Your task to perform on an android device: Search for "usb-b" on bestbuy, select the first entry, add it to the cart, then select checkout. Image 0: 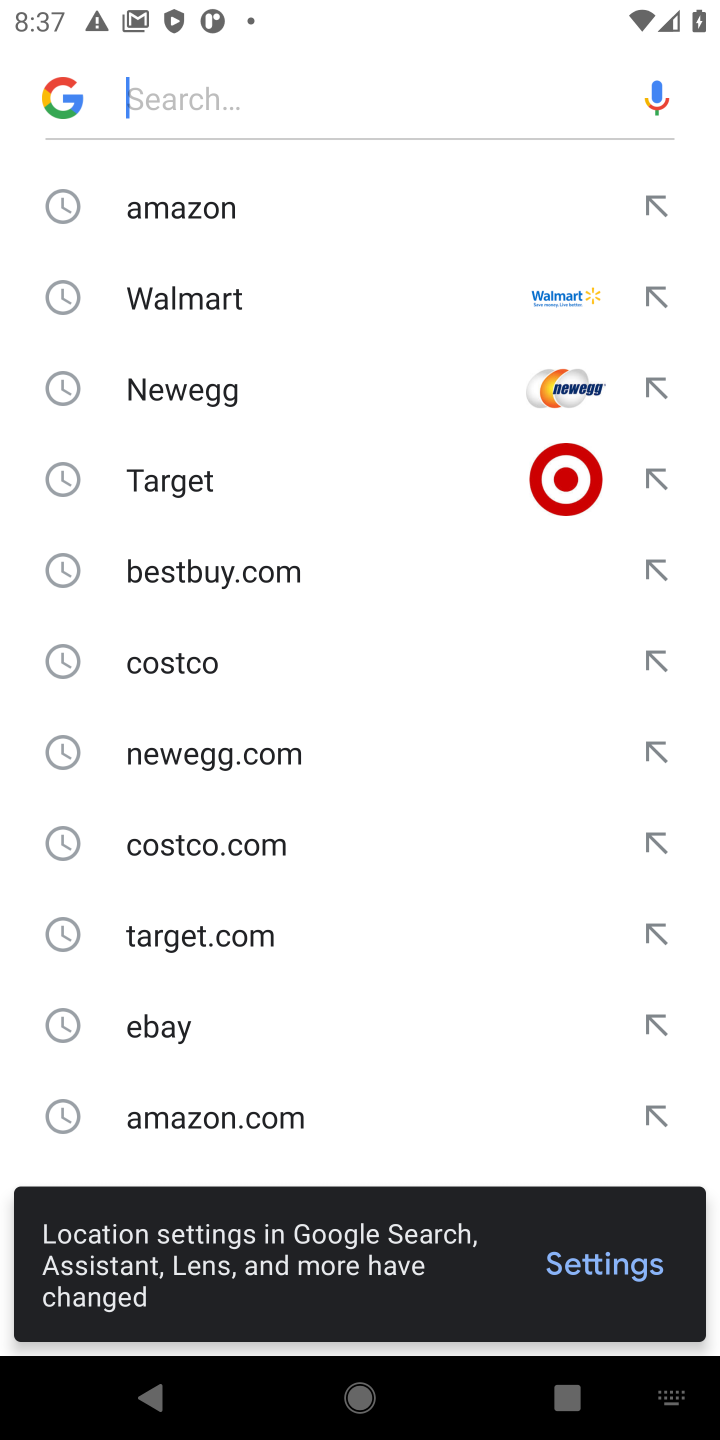
Step 0: press home button
Your task to perform on an android device: Search for "usb-b" on bestbuy, select the first entry, add it to the cart, then select checkout. Image 1: 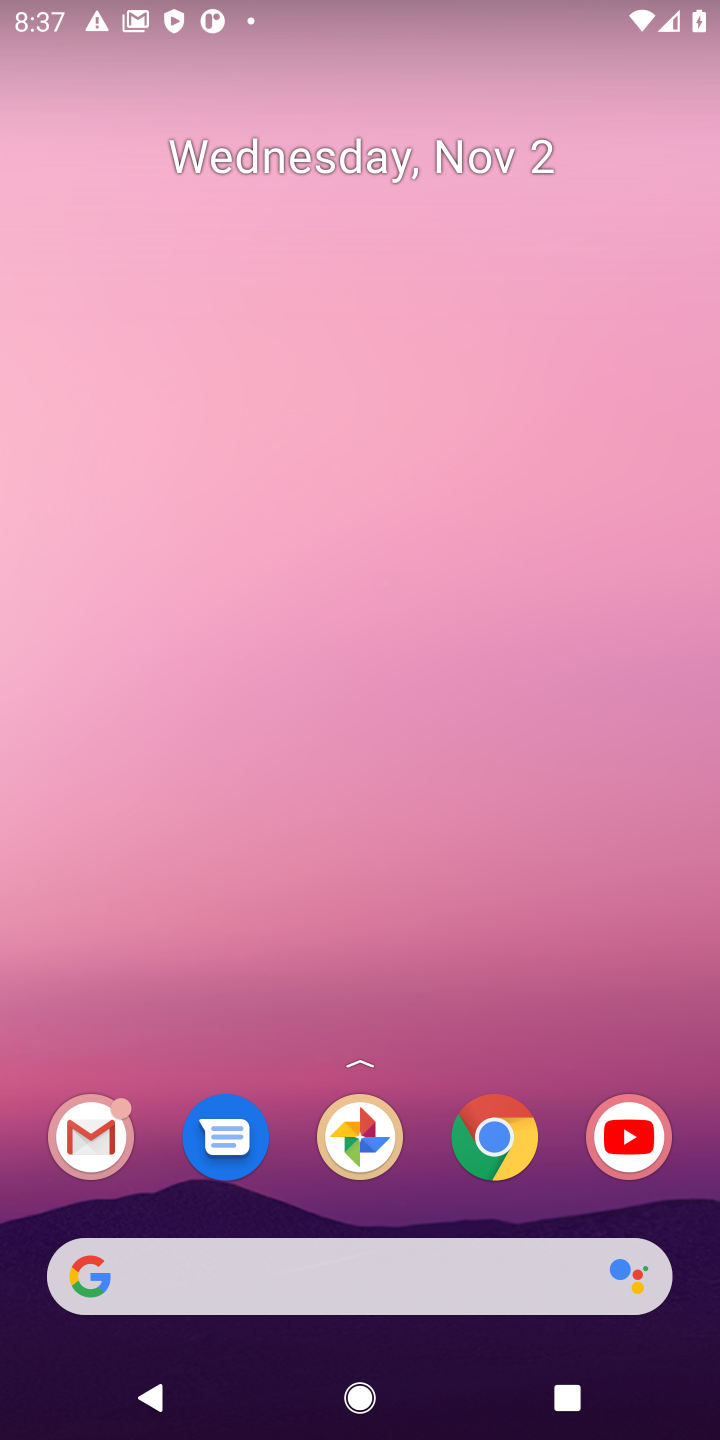
Step 1: click (488, 1137)
Your task to perform on an android device: Search for "usb-b" on bestbuy, select the first entry, add it to the cart, then select checkout. Image 2: 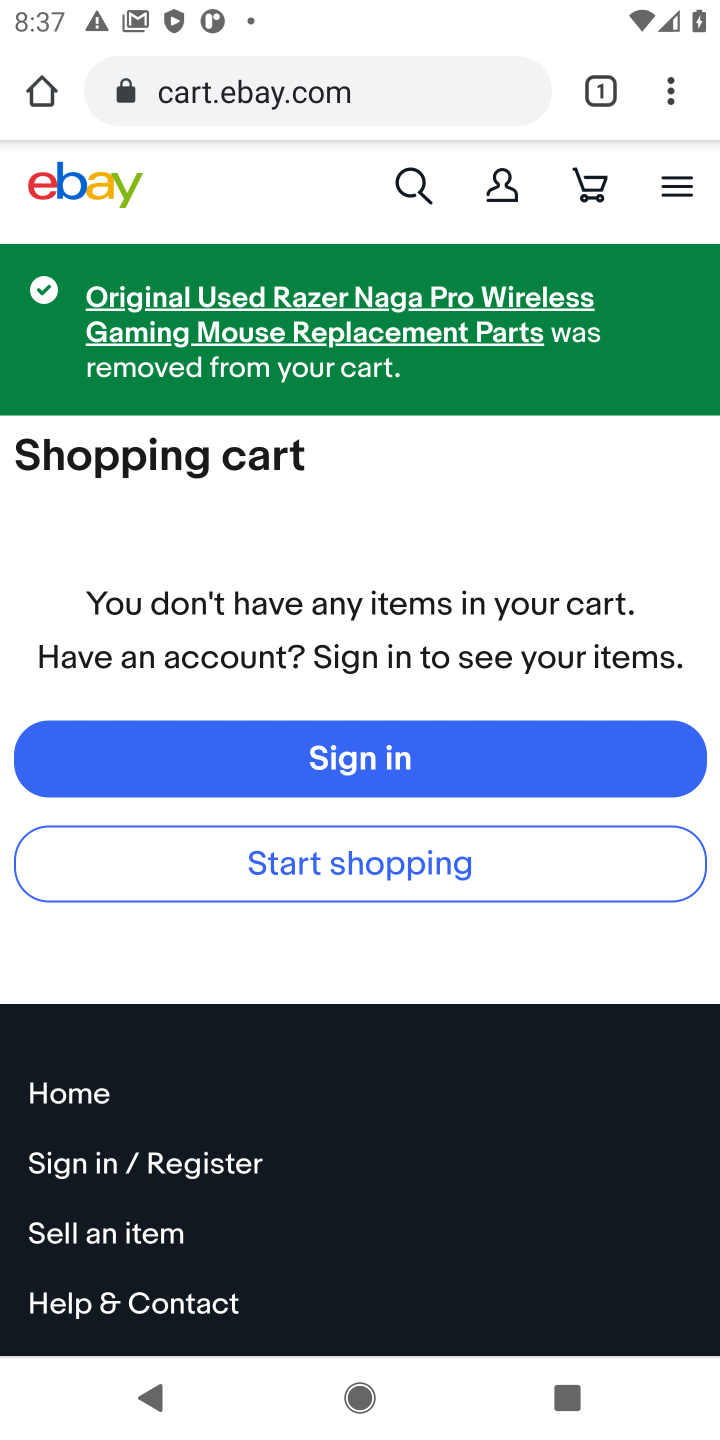
Step 2: click (358, 61)
Your task to perform on an android device: Search for "usb-b" on bestbuy, select the first entry, add it to the cart, then select checkout. Image 3: 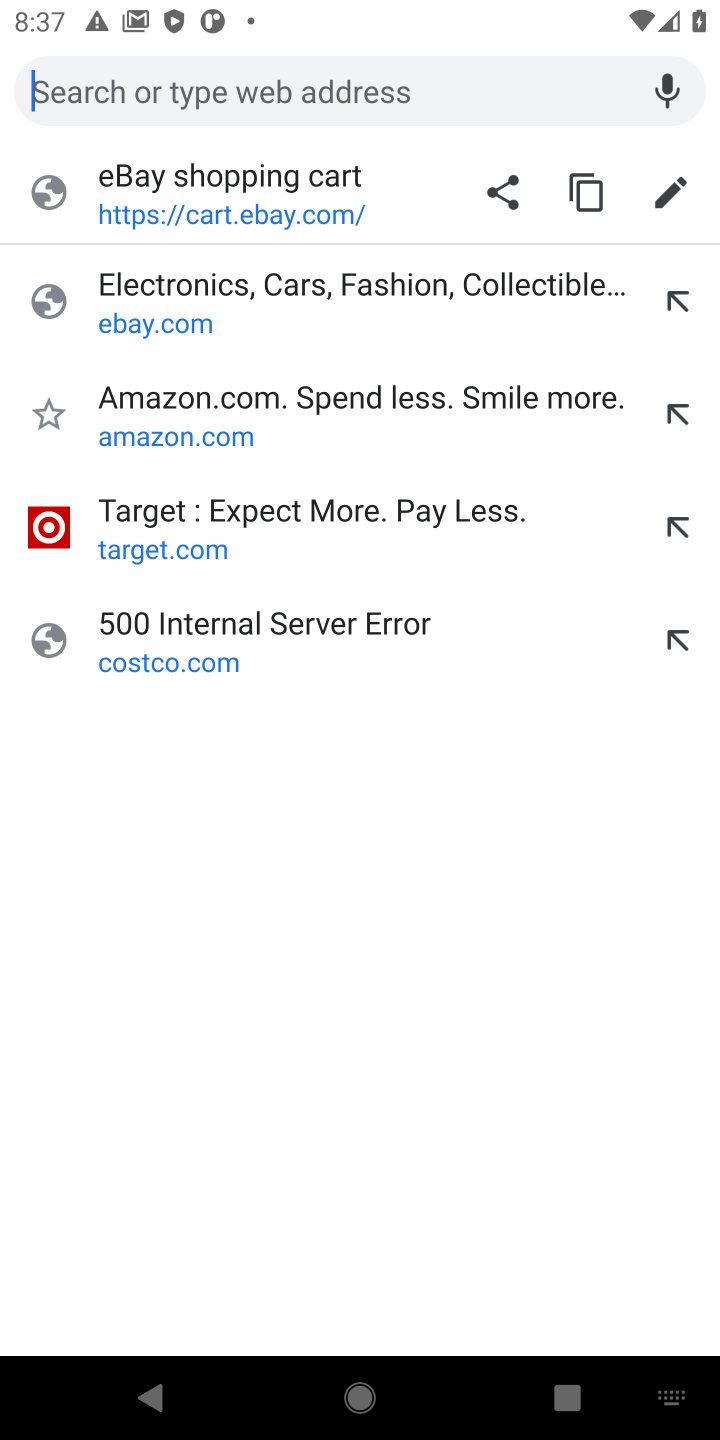
Step 3: type "bestbuy.com"
Your task to perform on an android device: Search for "usb-b" on bestbuy, select the first entry, add it to the cart, then select checkout. Image 4: 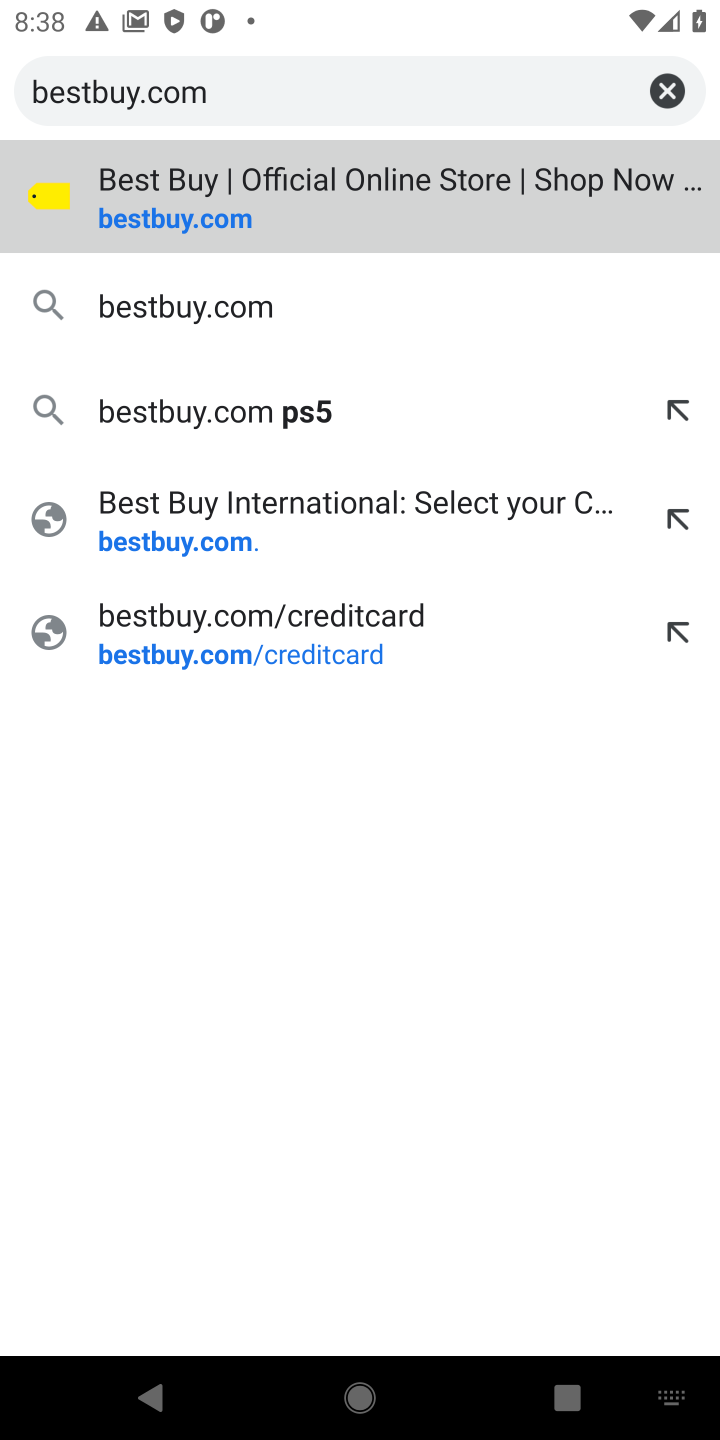
Step 4: click (171, 199)
Your task to perform on an android device: Search for "usb-b" on bestbuy, select the first entry, add it to the cart, then select checkout. Image 5: 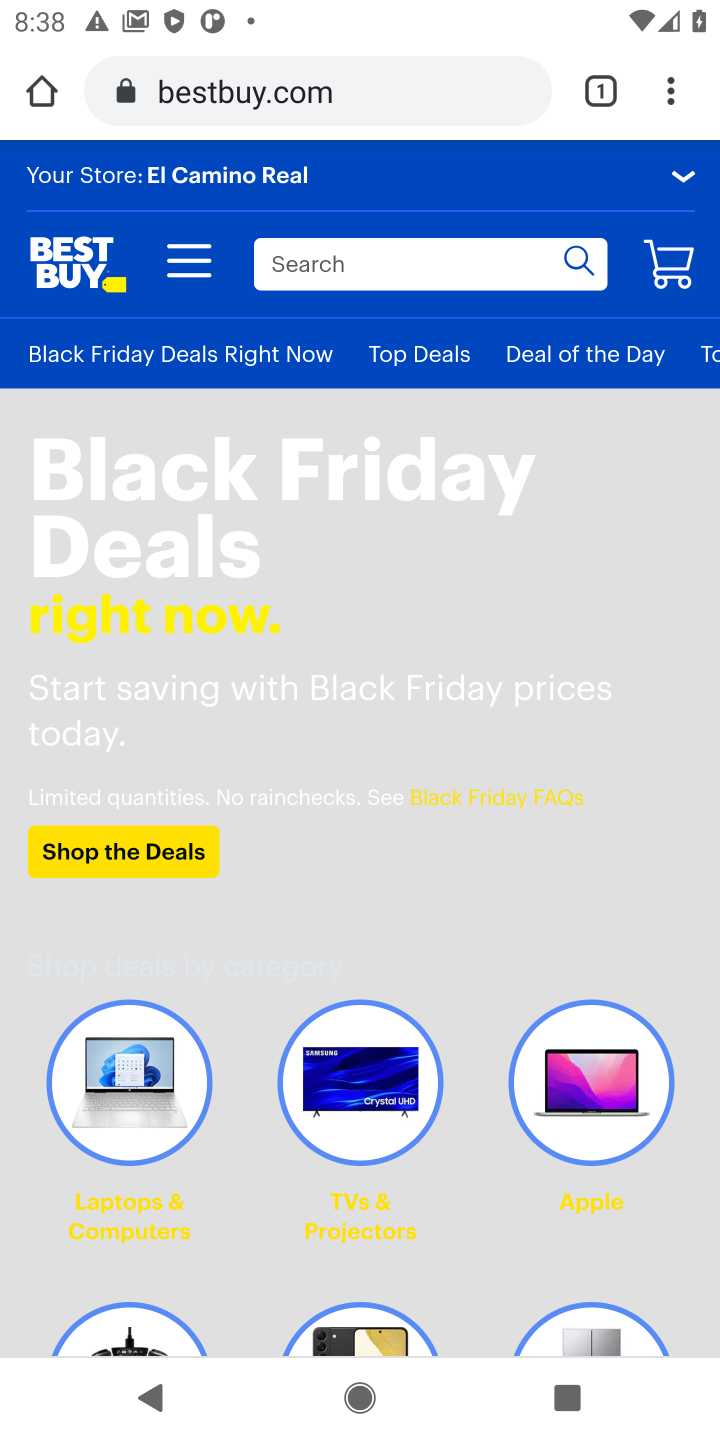
Step 5: click (387, 254)
Your task to perform on an android device: Search for "usb-b" on bestbuy, select the first entry, add it to the cart, then select checkout. Image 6: 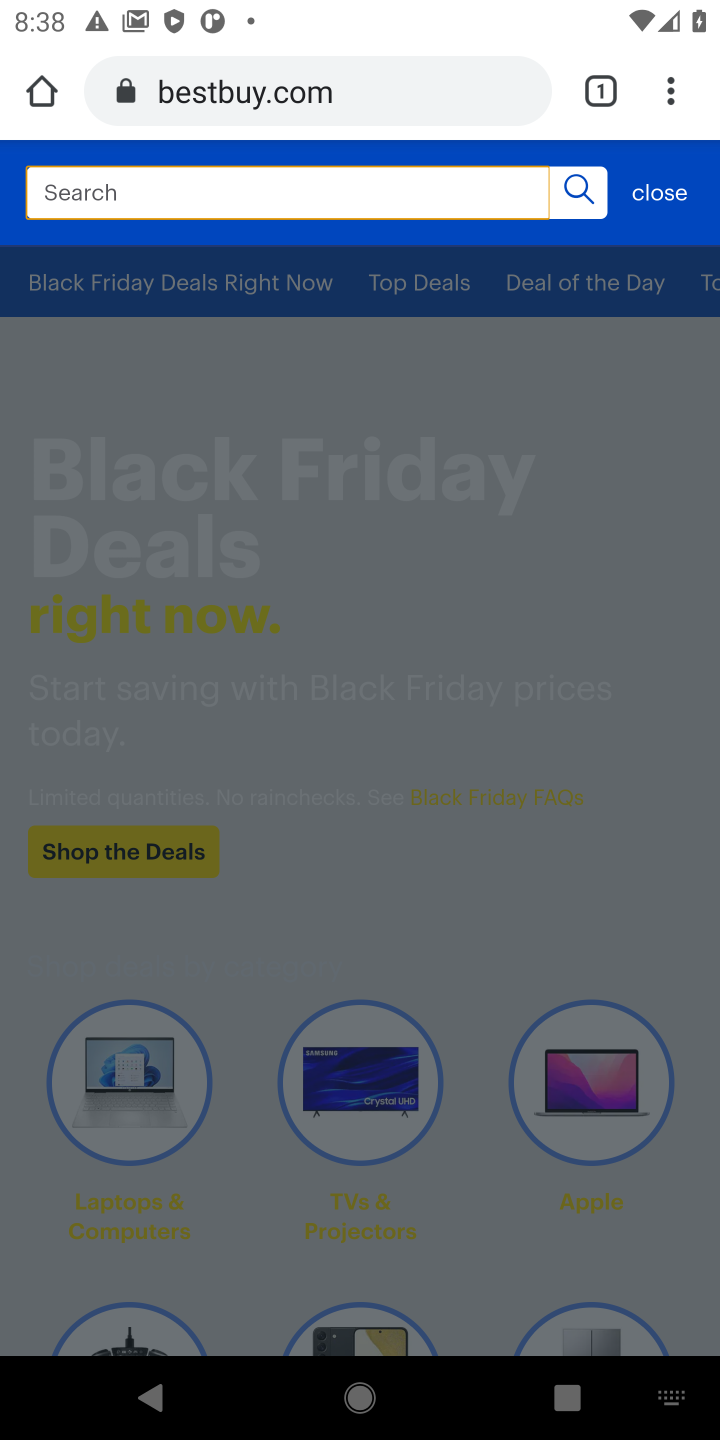
Step 6: type "usb-b"
Your task to perform on an android device: Search for "usb-b" on bestbuy, select the first entry, add it to the cart, then select checkout. Image 7: 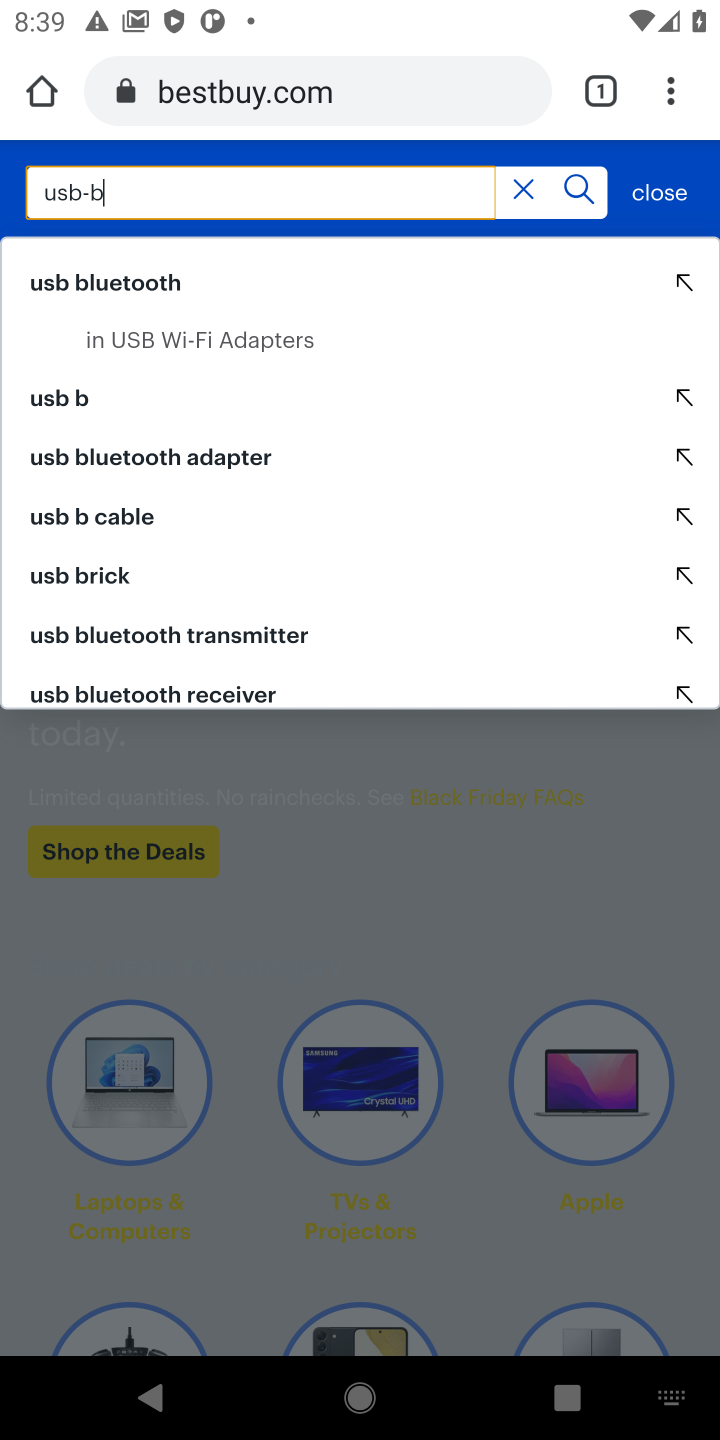
Step 7: click (62, 395)
Your task to perform on an android device: Search for "usb-b" on bestbuy, select the first entry, add it to the cart, then select checkout. Image 8: 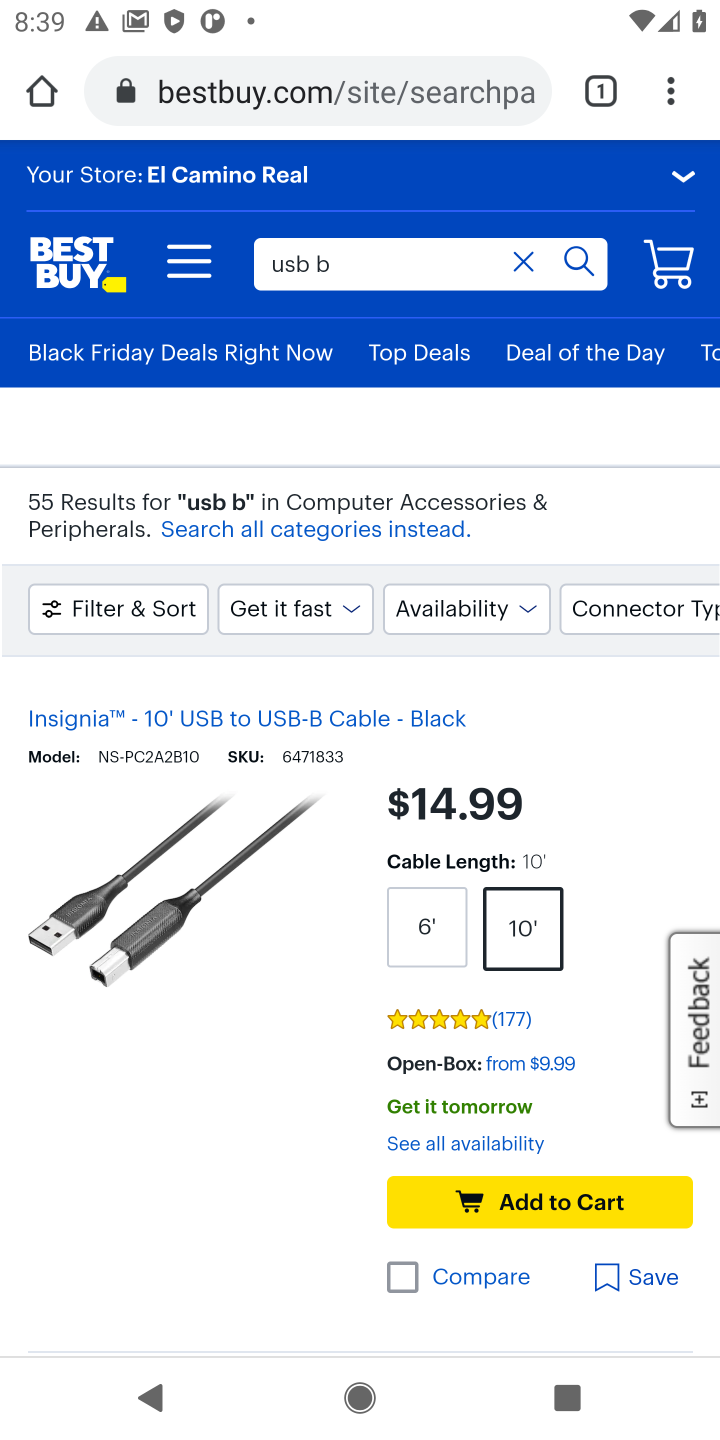
Step 8: click (522, 1205)
Your task to perform on an android device: Search for "usb-b" on bestbuy, select the first entry, add it to the cart, then select checkout. Image 9: 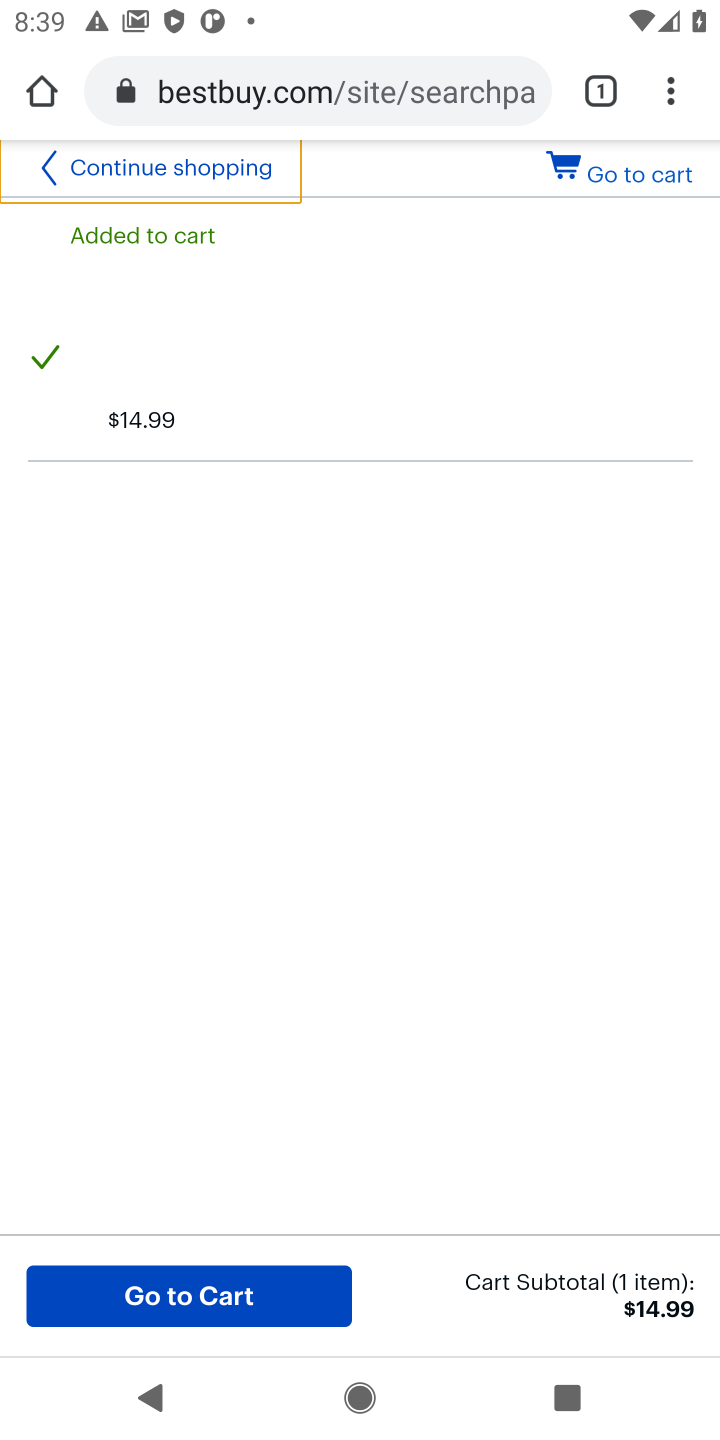
Step 9: click (637, 166)
Your task to perform on an android device: Search for "usb-b" on bestbuy, select the first entry, add it to the cart, then select checkout. Image 10: 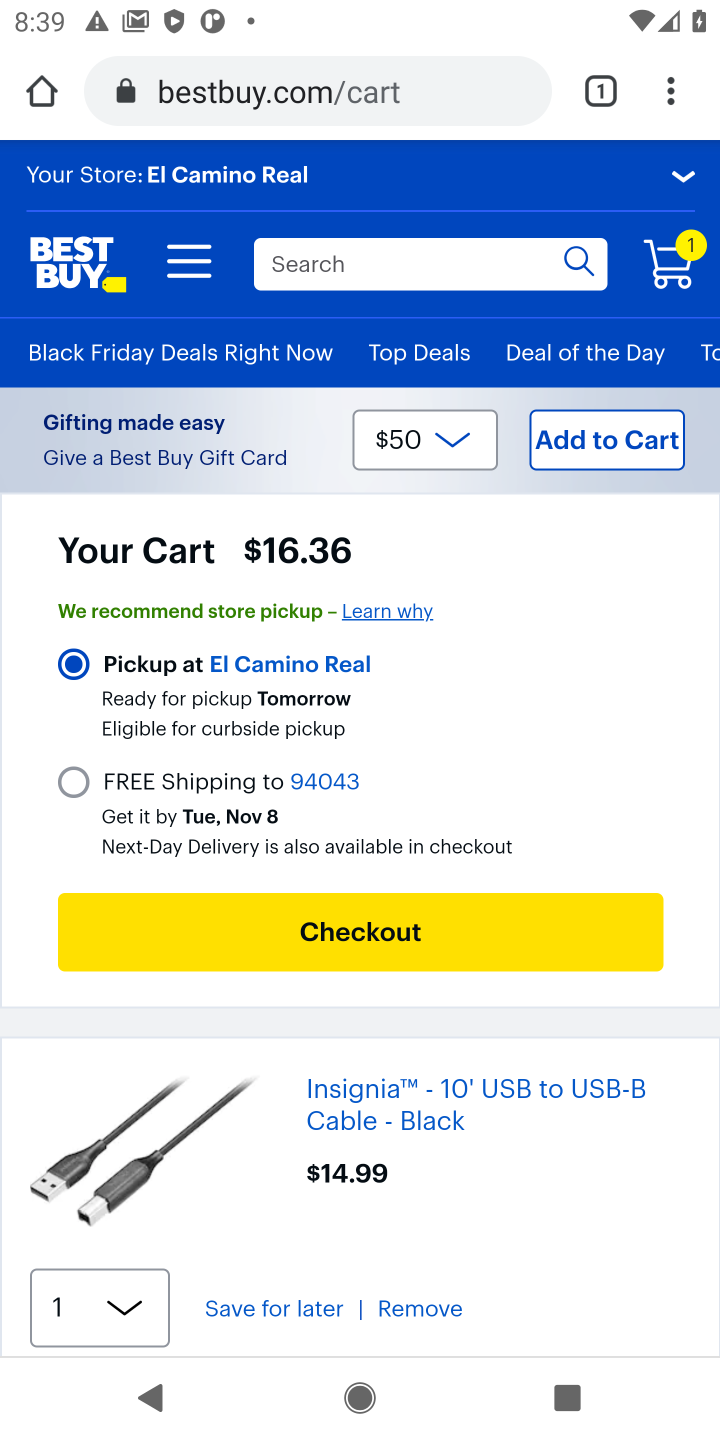
Step 10: click (362, 917)
Your task to perform on an android device: Search for "usb-b" on bestbuy, select the first entry, add it to the cart, then select checkout. Image 11: 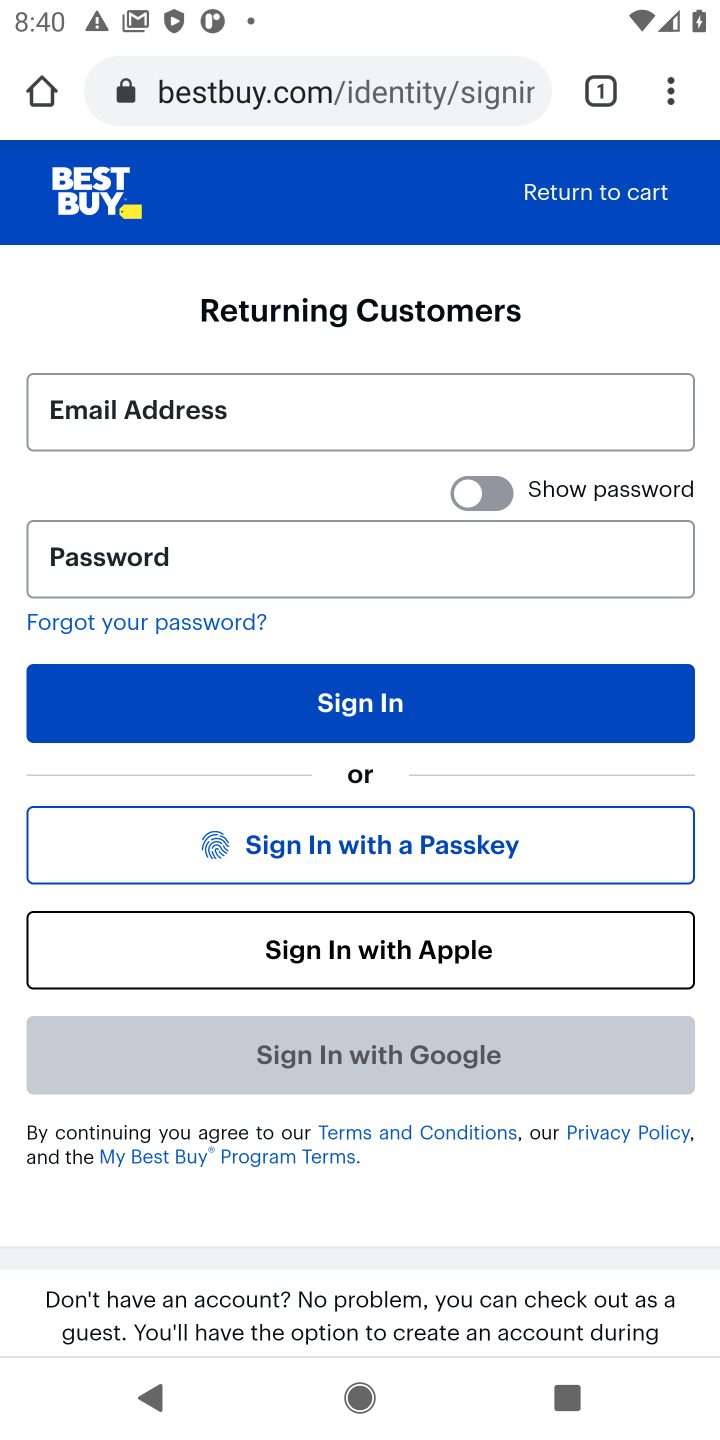
Step 11: task complete